Your task to perform on an android device: Open the stopwatch Image 0: 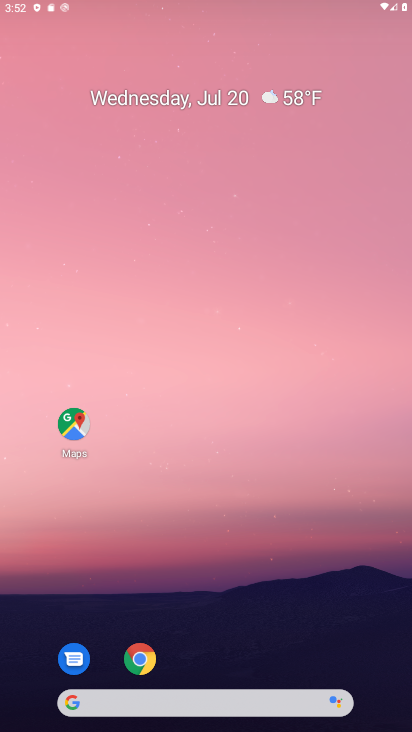
Step 0: press back button
Your task to perform on an android device: Open the stopwatch Image 1: 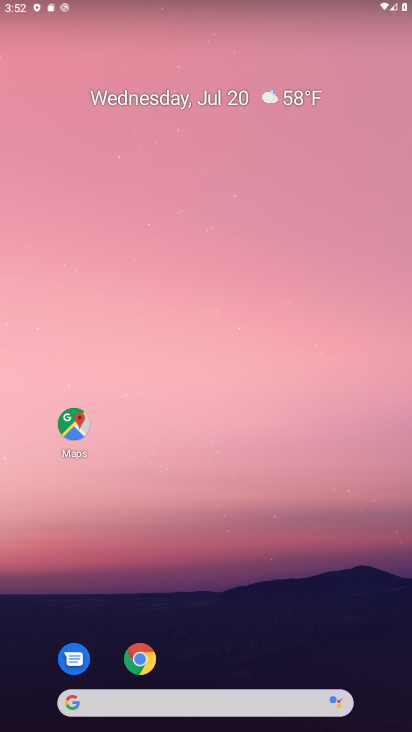
Step 1: drag from (240, 398) to (232, 243)
Your task to perform on an android device: Open the stopwatch Image 2: 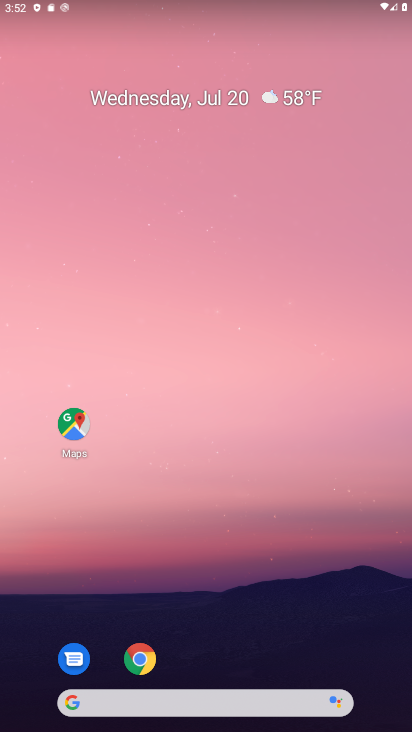
Step 2: drag from (207, 462) to (259, 69)
Your task to perform on an android device: Open the stopwatch Image 3: 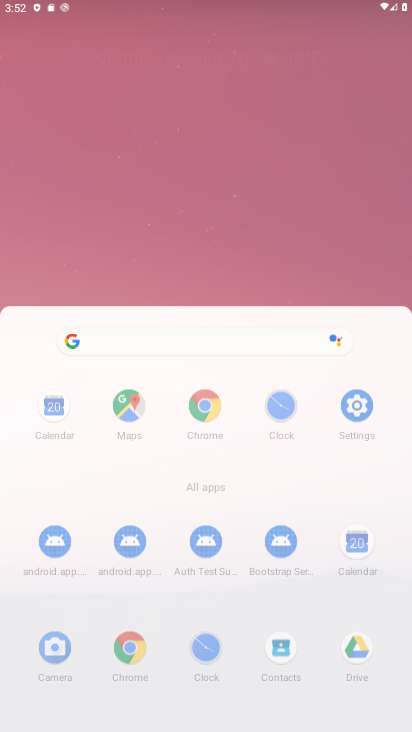
Step 3: drag from (333, 596) to (260, 5)
Your task to perform on an android device: Open the stopwatch Image 4: 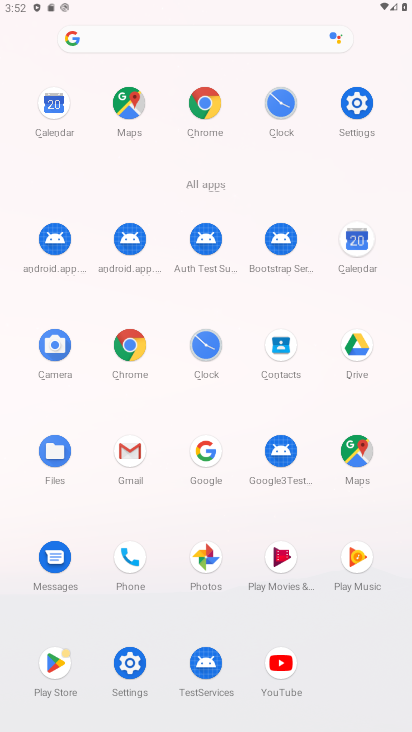
Step 4: click (280, 100)
Your task to perform on an android device: Open the stopwatch Image 5: 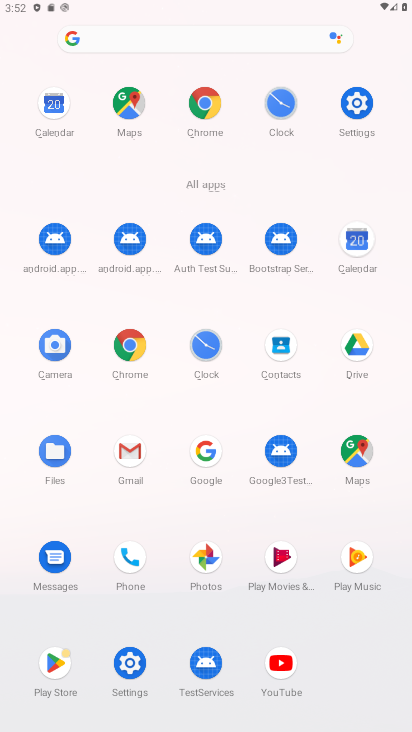
Step 5: click (281, 103)
Your task to perform on an android device: Open the stopwatch Image 6: 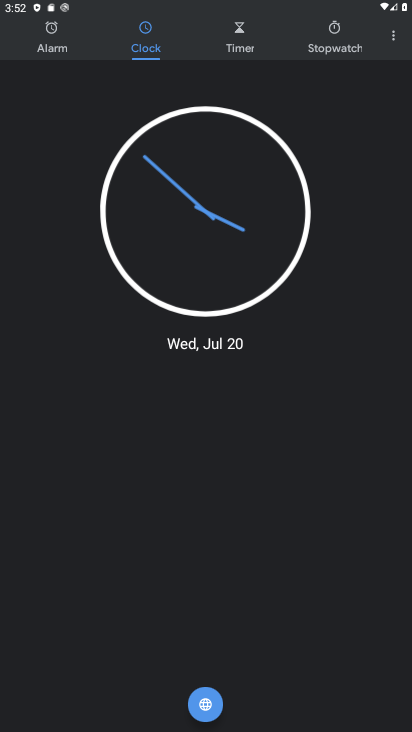
Step 6: click (336, 33)
Your task to perform on an android device: Open the stopwatch Image 7: 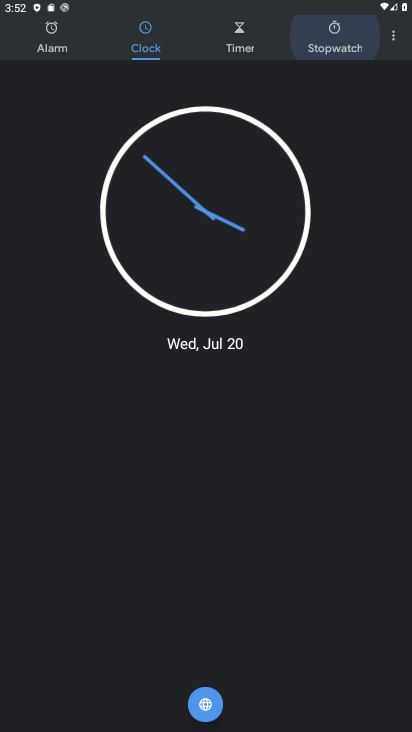
Step 7: click (336, 32)
Your task to perform on an android device: Open the stopwatch Image 8: 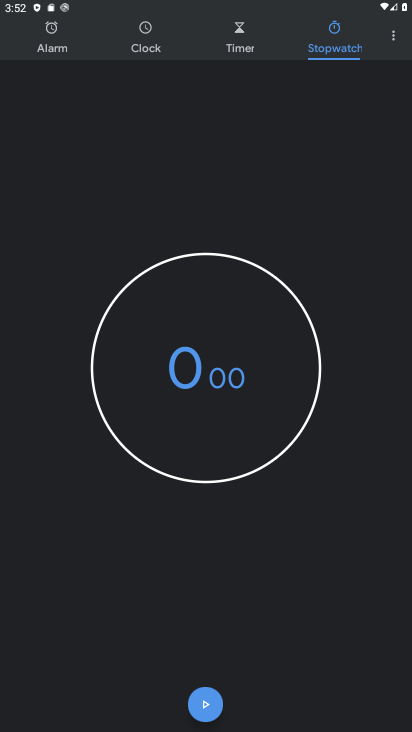
Step 8: task complete